Your task to perform on an android device: Open display settings Image 0: 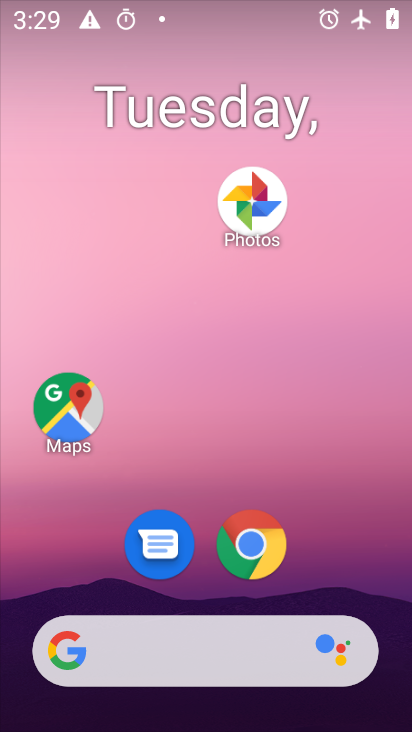
Step 0: drag from (350, 535) to (315, 92)
Your task to perform on an android device: Open display settings Image 1: 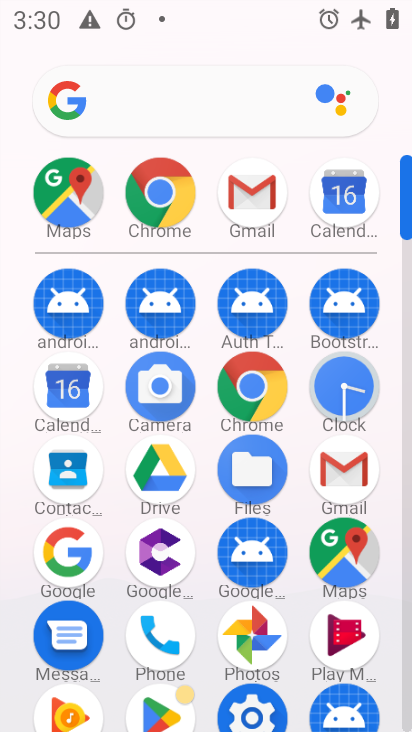
Step 1: click (243, 712)
Your task to perform on an android device: Open display settings Image 2: 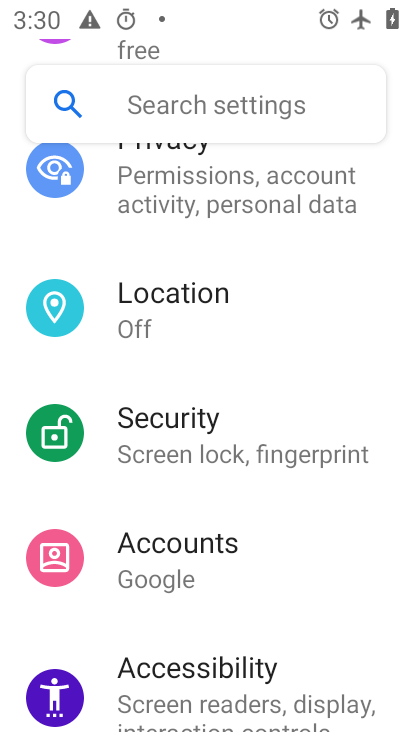
Step 2: drag from (323, 587) to (333, 117)
Your task to perform on an android device: Open display settings Image 3: 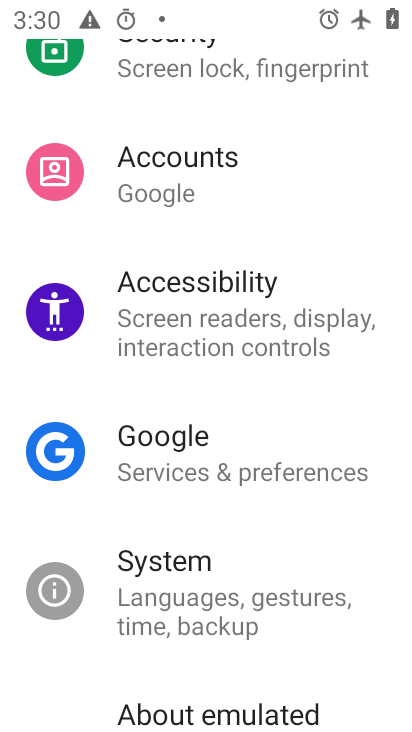
Step 3: drag from (289, 216) to (307, 705)
Your task to perform on an android device: Open display settings Image 4: 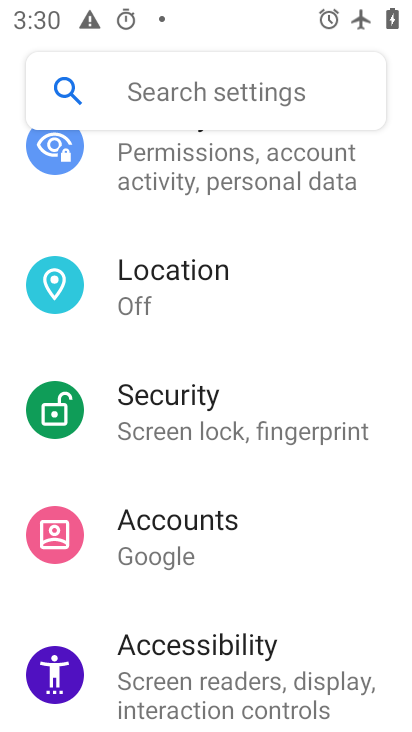
Step 4: drag from (278, 600) to (257, 196)
Your task to perform on an android device: Open display settings Image 5: 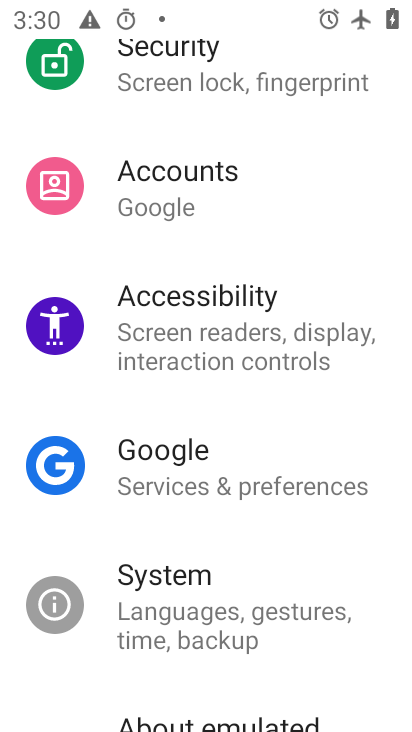
Step 5: drag from (241, 140) to (238, 730)
Your task to perform on an android device: Open display settings Image 6: 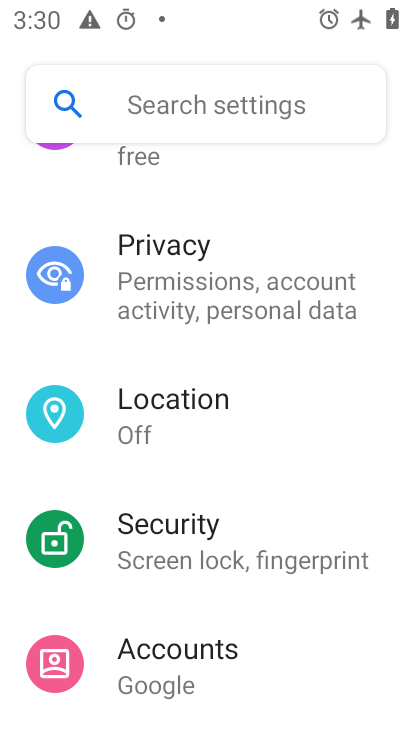
Step 6: drag from (271, 204) to (262, 673)
Your task to perform on an android device: Open display settings Image 7: 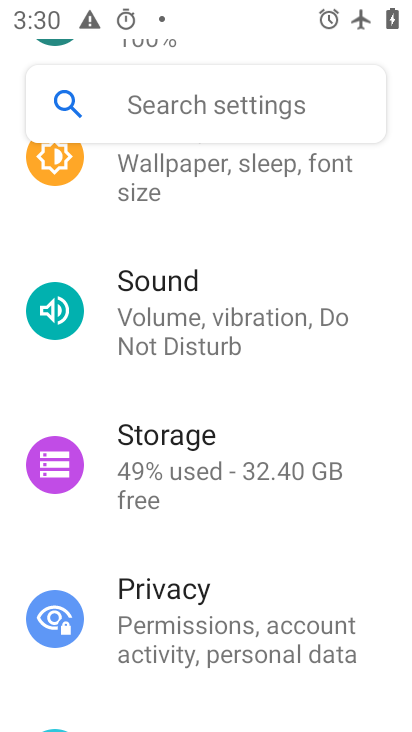
Step 7: drag from (243, 306) to (266, 693)
Your task to perform on an android device: Open display settings Image 8: 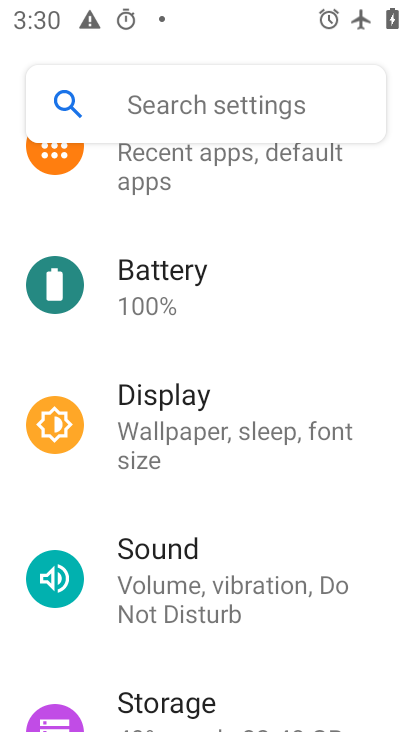
Step 8: drag from (225, 252) to (226, 530)
Your task to perform on an android device: Open display settings Image 9: 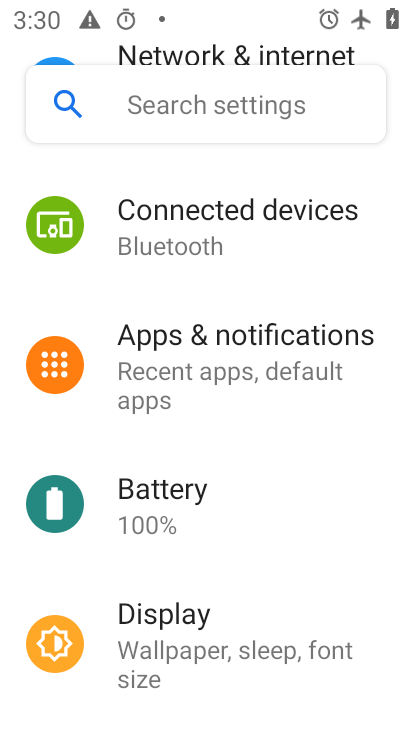
Step 9: click (150, 633)
Your task to perform on an android device: Open display settings Image 10: 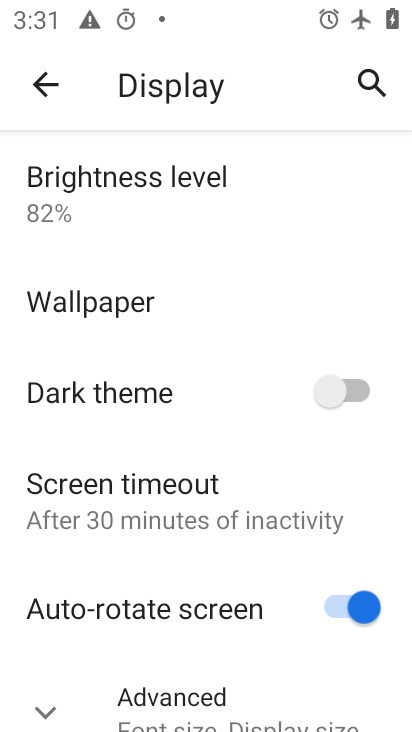
Step 10: task complete